Your task to perform on an android device: Set the phone to "Do not disturb". Image 0: 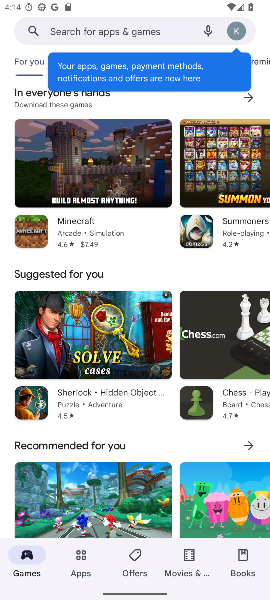
Step 0: drag from (142, 525) to (163, 579)
Your task to perform on an android device: Set the phone to "Do not disturb". Image 1: 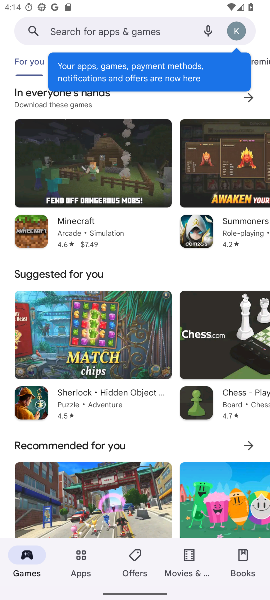
Step 1: drag from (148, 433) to (159, 192)
Your task to perform on an android device: Set the phone to "Do not disturb". Image 2: 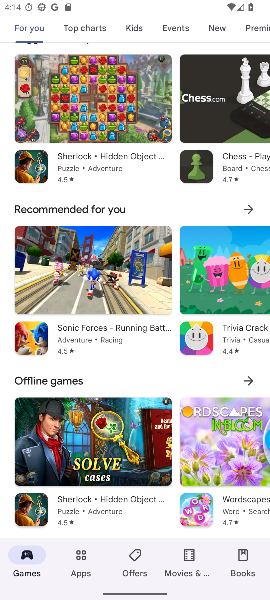
Step 2: press home button
Your task to perform on an android device: Set the phone to "Do not disturb". Image 3: 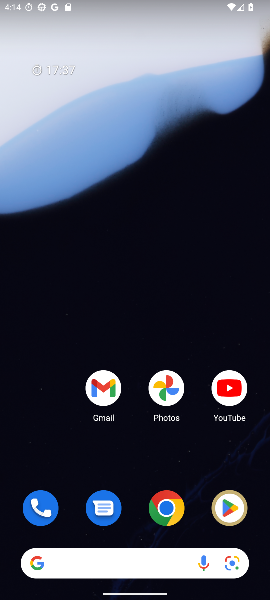
Step 3: drag from (136, 494) to (159, 153)
Your task to perform on an android device: Set the phone to "Do not disturb". Image 4: 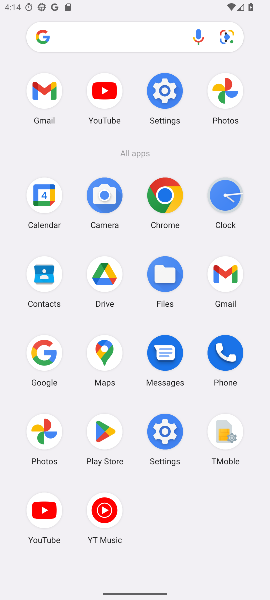
Step 4: click (163, 434)
Your task to perform on an android device: Set the phone to "Do not disturb". Image 5: 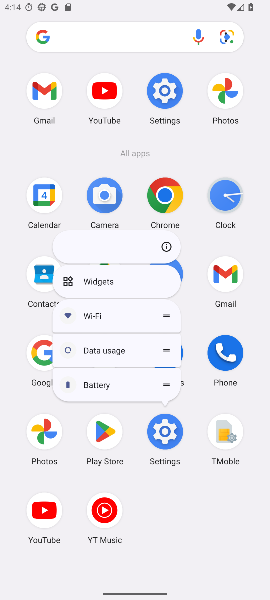
Step 5: click (164, 244)
Your task to perform on an android device: Set the phone to "Do not disturb". Image 6: 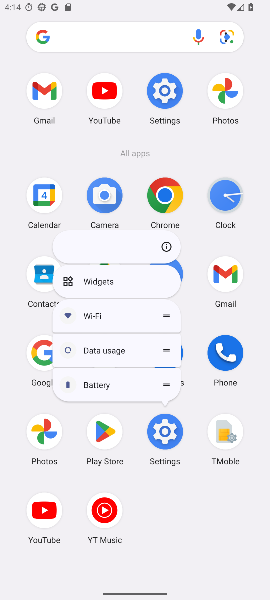
Step 6: click (164, 244)
Your task to perform on an android device: Set the phone to "Do not disturb". Image 7: 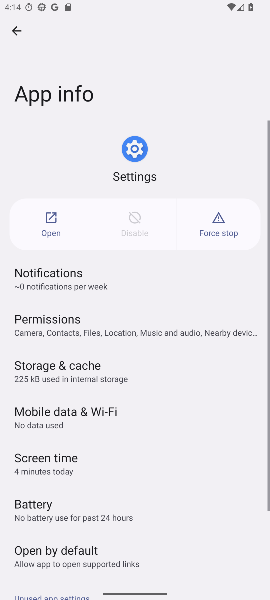
Step 7: click (35, 228)
Your task to perform on an android device: Set the phone to "Do not disturb". Image 8: 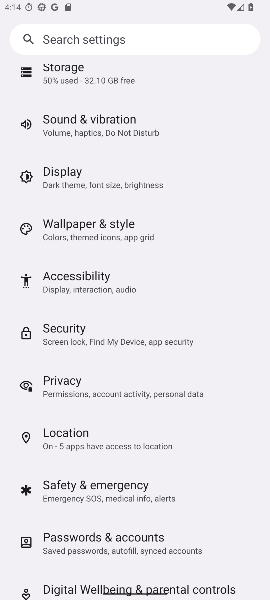
Step 8: drag from (136, 183) to (165, 538)
Your task to perform on an android device: Set the phone to "Do not disturb". Image 9: 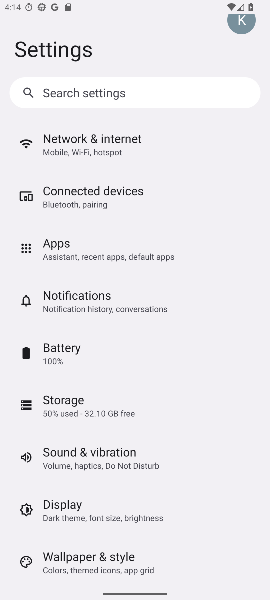
Step 9: drag from (108, 445) to (138, 229)
Your task to perform on an android device: Set the phone to "Do not disturb". Image 10: 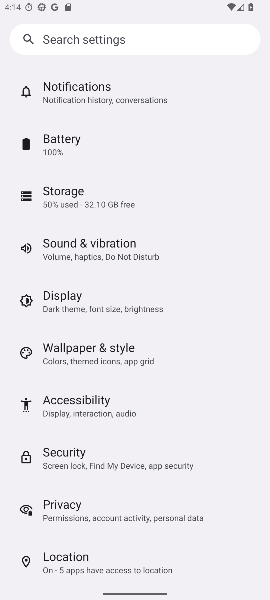
Step 10: click (80, 84)
Your task to perform on an android device: Set the phone to "Do not disturb". Image 11: 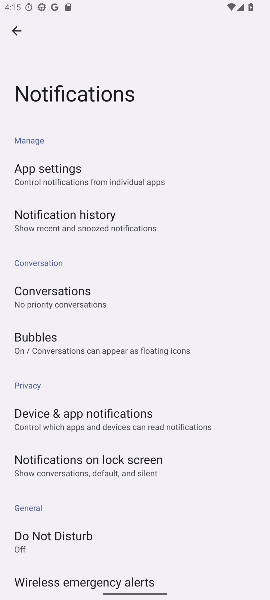
Step 11: drag from (119, 408) to (138, 244)
Your task to perform on an android device: Set the phone to "Do not disturb". Image 12: 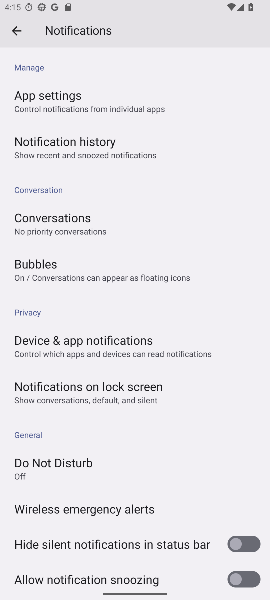
Step 12: drag from (143, 508) to (213, 335)
Your task to perform on an android device: Set the phone to "Do not disturb". Image 13: 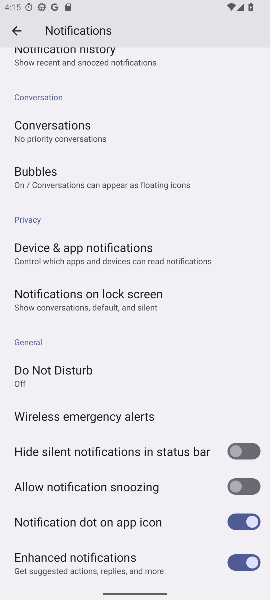
Step 13: click (85, 372)
Your task to perform on an android device: Set the phone to "Do not disturb". Image 14: 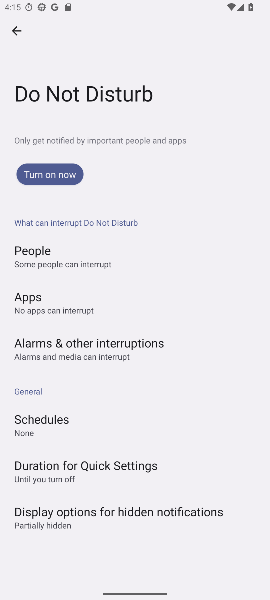
Step 14: click (38, 176)
Your task to perform on an android device: Set the phone to "Do not disturb". Image 15: 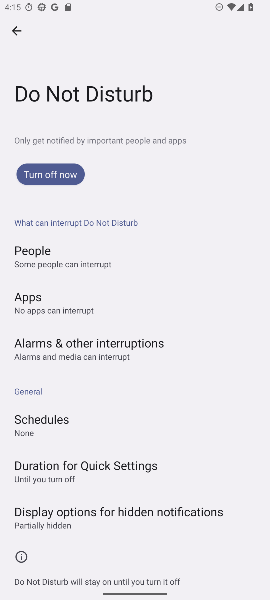
Step 15: task complete